Your task to perform on an android device: Go to ESPN.com Image 0: 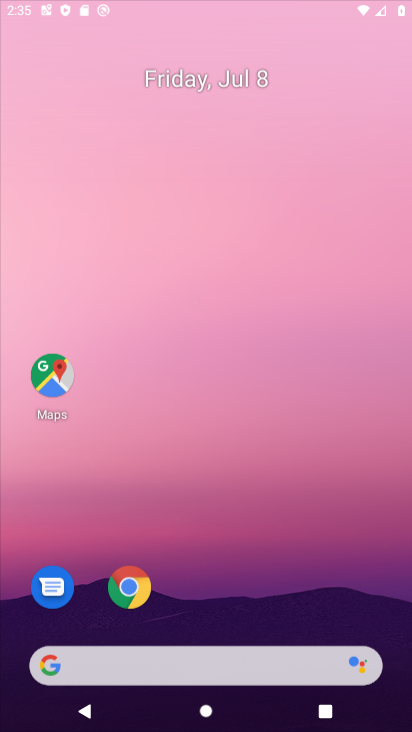
Step 0: press home button
Your task to perform on an android device: Go to ESPN.com Image 1: 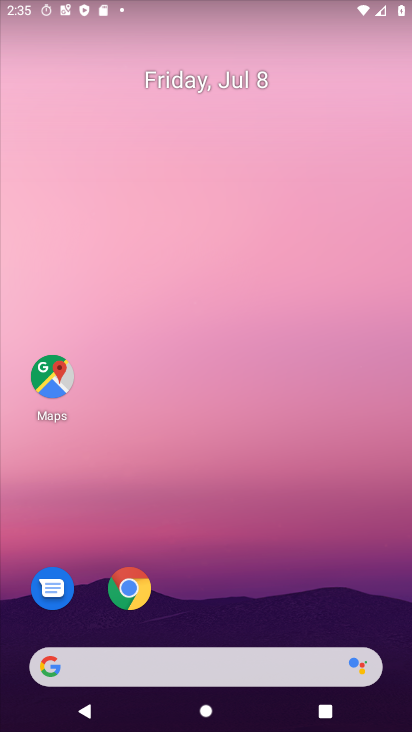
Step 1: click (51, 667)
Your task to perform on an android device: Go to ESPN.com Image 2: 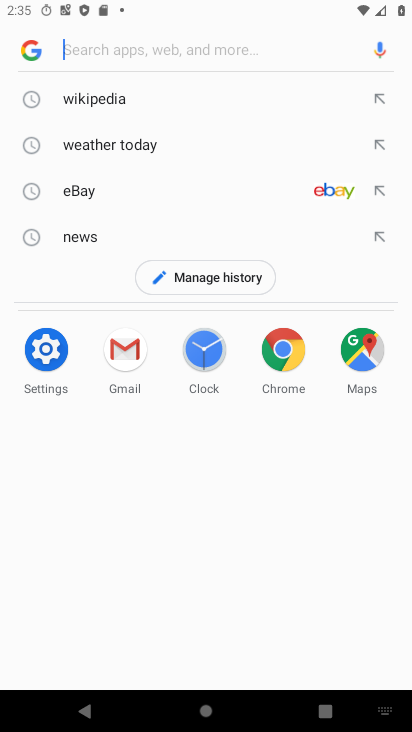
Step 2: type "ESPN.com"
Your task to perform on an android device: Go to ESPN.com Image 3: 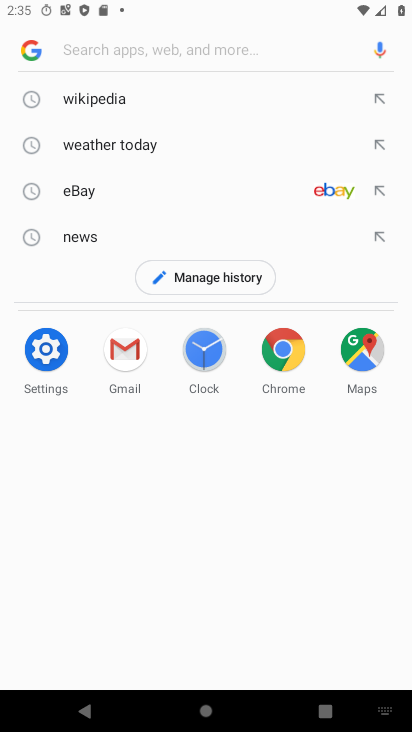
Step 3: click (213, 50)
Your task to perform on an android device: Go to ESPN.com Image 4: 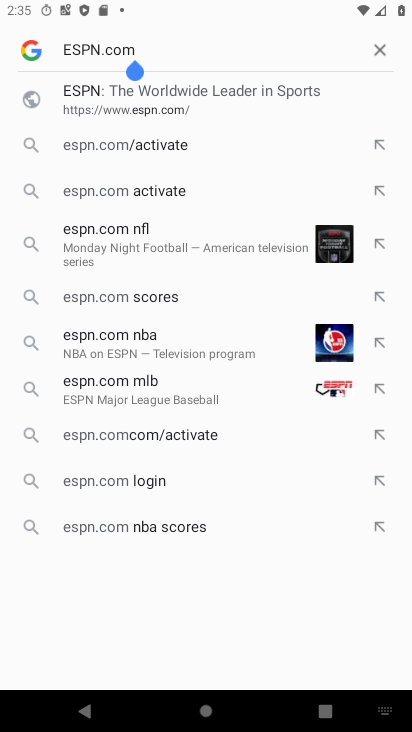
Step 4: click (63, 88)
Your task to perform on an android device: Go to ESPN.com Image 5: 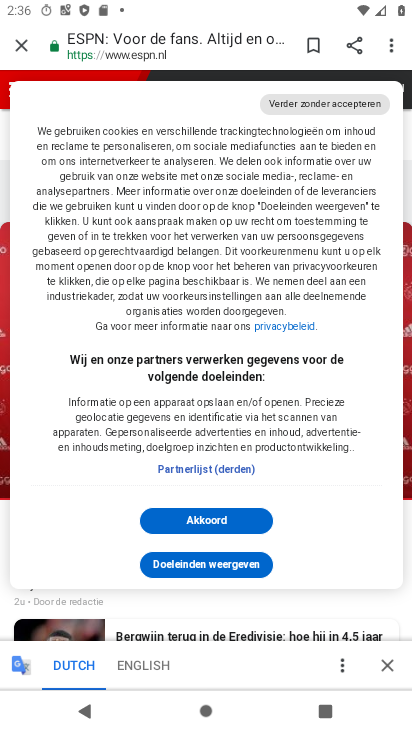
Step 5: task complete